Your task to perform on an android device: toggle pop-ups in chrome Image 0: 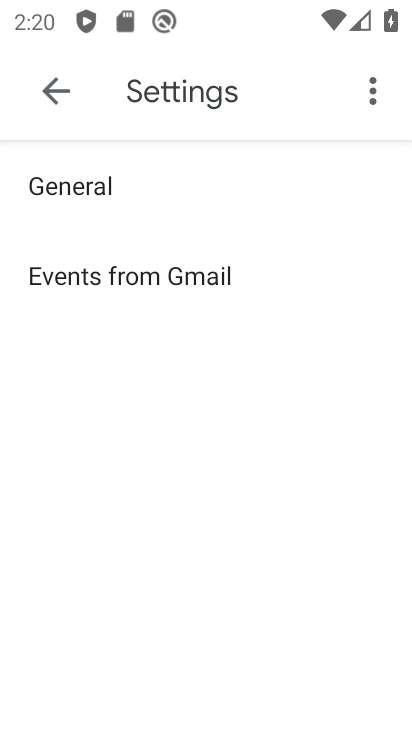
Step 0: press home button
Your task to perform on an android device: toggle pop-ups in chrome Image 1: 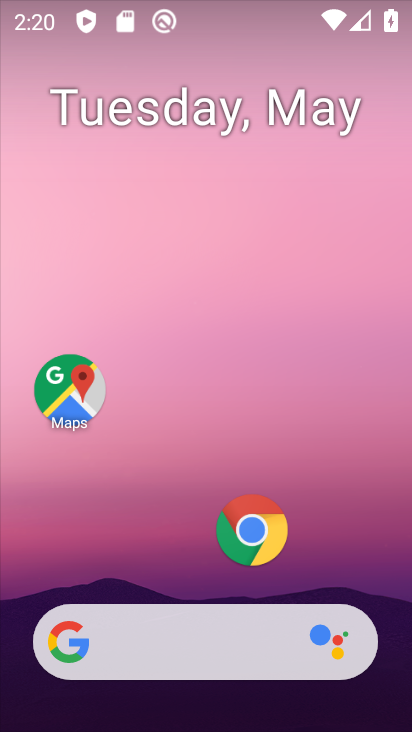
Step 1: drag from (190, 565) to (205, 43)
Your task to perform on an android device: toggle pop-ups in chrome Image 2: 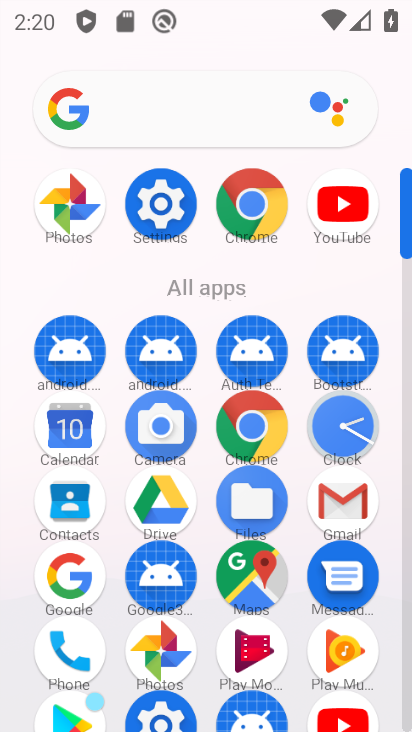
Step 2: click (261, 210)
Your task to perform on an android device: toggle pop-ups in chrome Image 3: 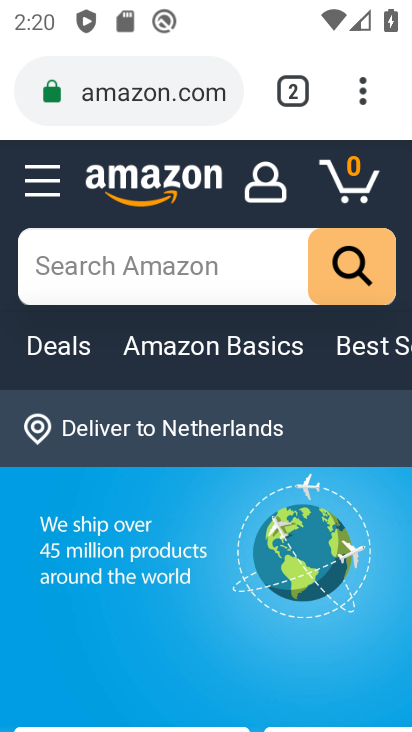
Step 3: click (365, 101)
Your task to perform on an android device: toggle pop-ups in chrome Image 4: 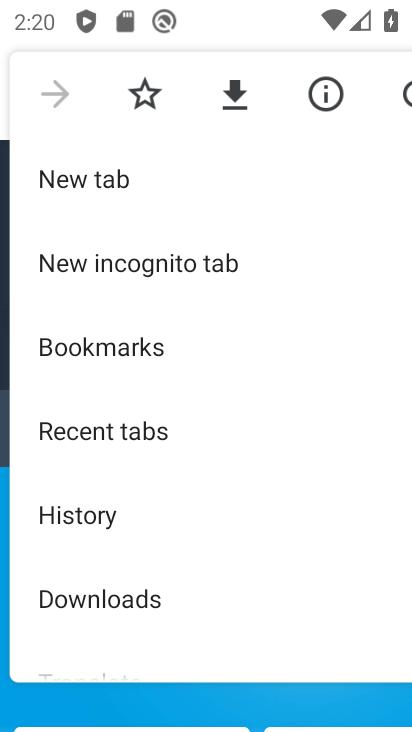
Step 4: drag from (168, 590) to (186, 120)
Your task to perform on an android device: toggle pop-ups in chrome Image 5: 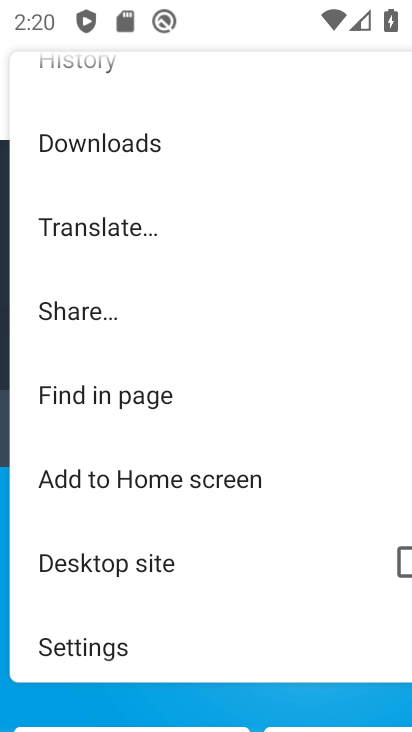
Step 5: click (142, 642)
Your task to perform on an android device: toggle pop-ups in chrome Image 6: 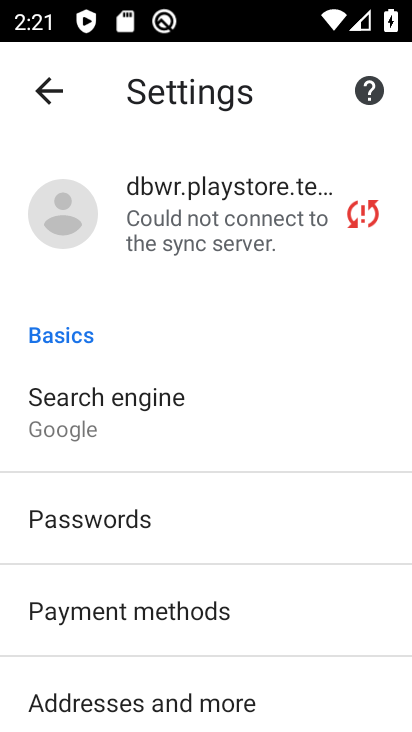
Step 6: drag from (251, 688) to (257, 292)
Your task to perform on an android device: toggle pop-ups in chrome Image 7: 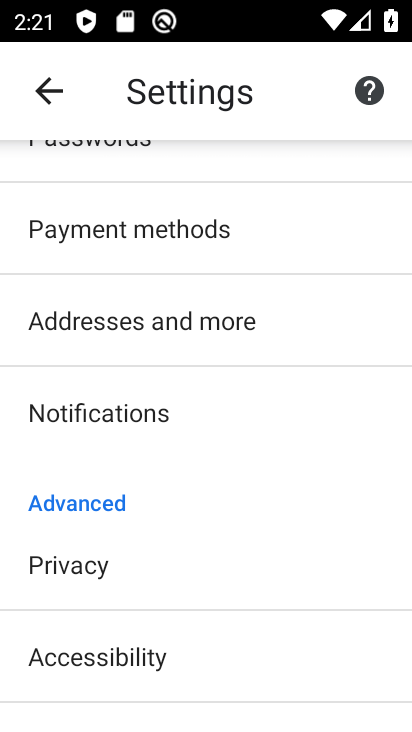
Step 7: drag from (178, 643) to (178, 165)
Your task to perform on an android device: toggle pop-ups in chrome Image 8: 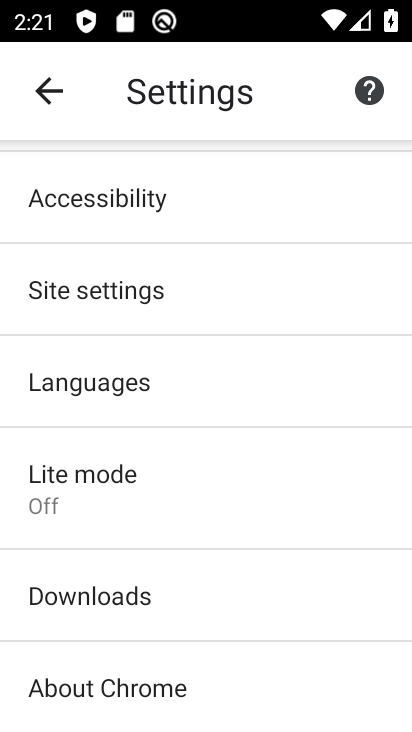
Step 8: click (162, 279)
Your task to perform on an android device: toggle pop-ups in chrome Image 9: 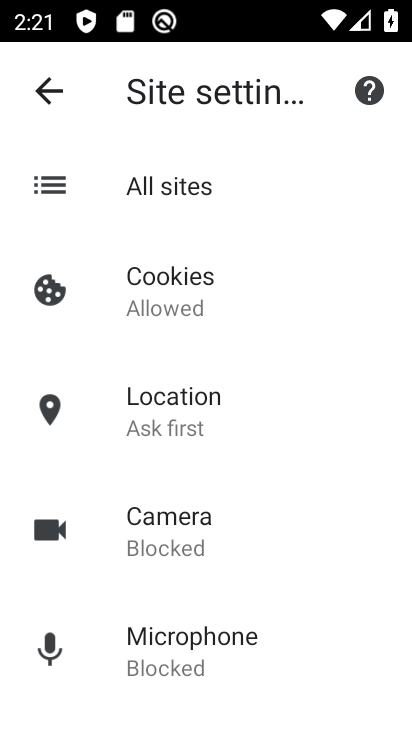
Step 9: drag from (217, 643) to (229, 302)
Your task to perform on an android device: toggle pop-ups in chrome Image 10: 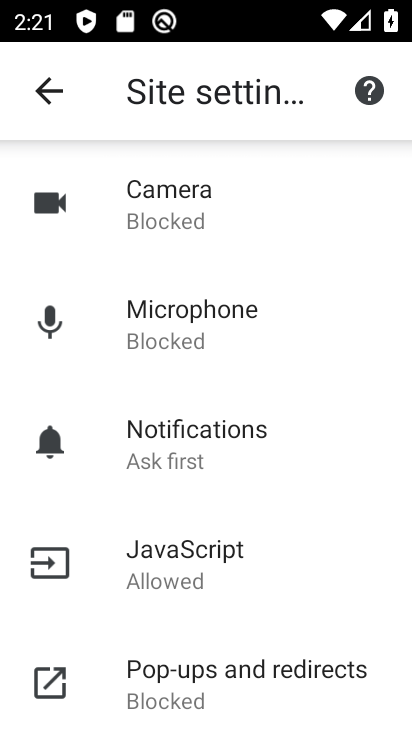
Step 10: click (220, 698)
Your task to perform on an android device: toggle pop-ups in chrome Image 11: 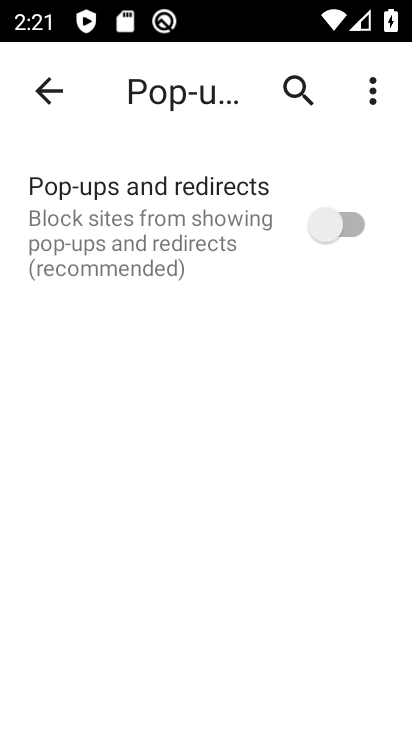
Step 11: click (341, 226)
Your task to perform on an android device: toggle pop-ups in chrome Image 12: 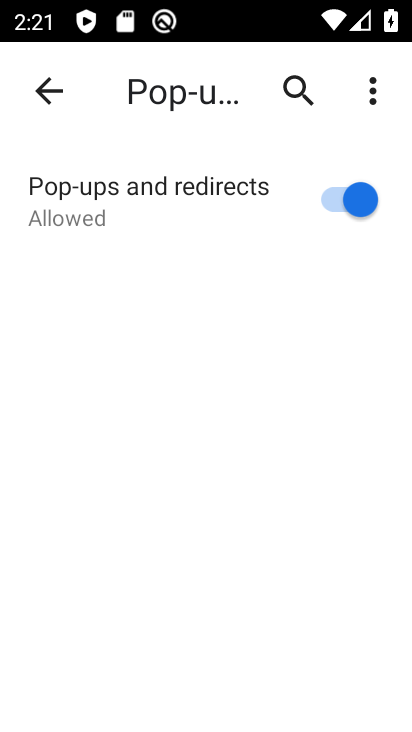
Step 12: task complete